Your task to perform on an android device: Go to location settings Image 0: 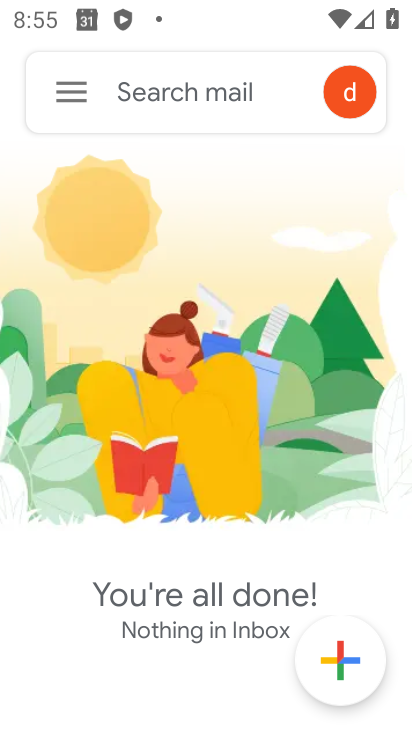
Step 0: press back button
Your task to perform on an android device: Go to location settings Image 1: 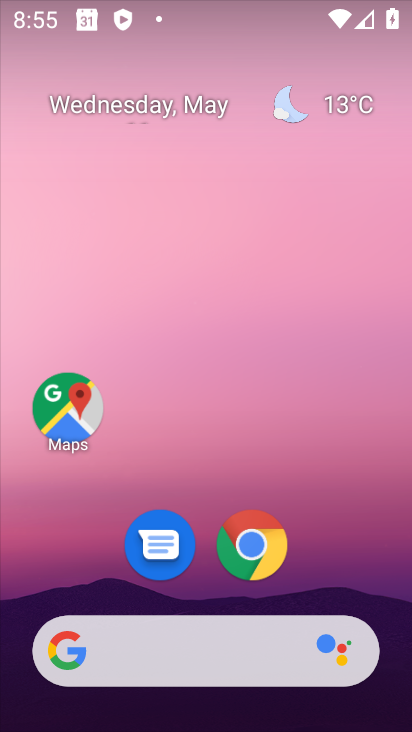
Step 1: drag from (327, 569) to (283, 40)
Your task to perform on an android device: Go to location settings Image 2: 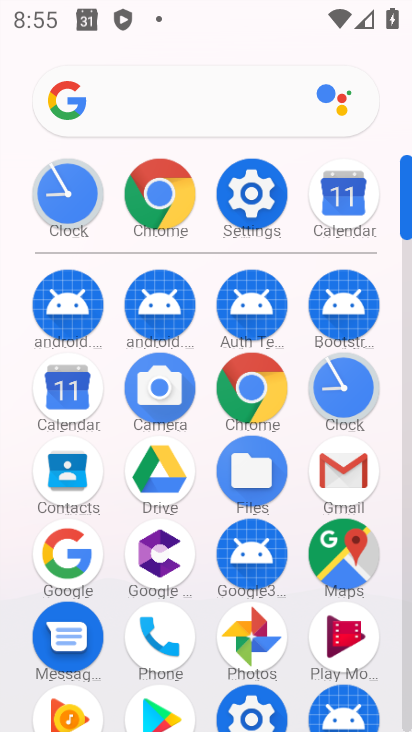
Step 2: drag from (8, 640) to (20, 315)
Your task to perform on an android device: Go to location settings Image 3: 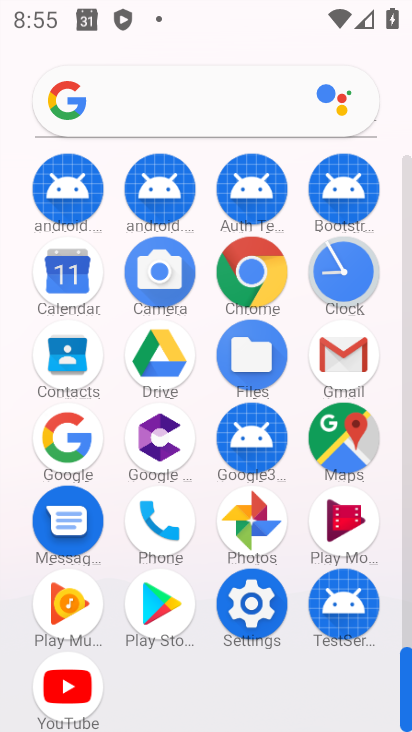
Step 3: click (251, 594)
Your task to perform on an android device: Go to location settings Image 4: 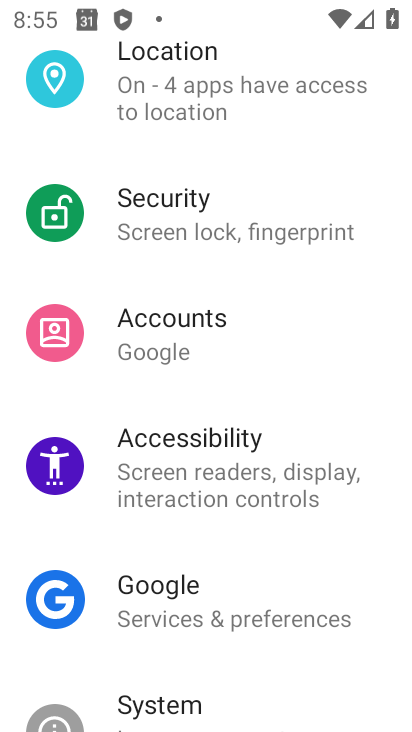
Step 4: click (223, 104)
Your task to perform on an android device: Go to location settings Image 5: 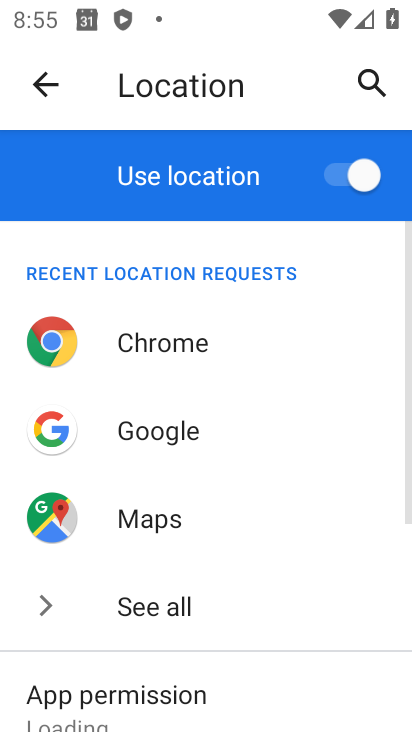
Step 5: drag from (253, 558) to (249, 170)
Your task to perform on an android device: Go to location settings Image 6: 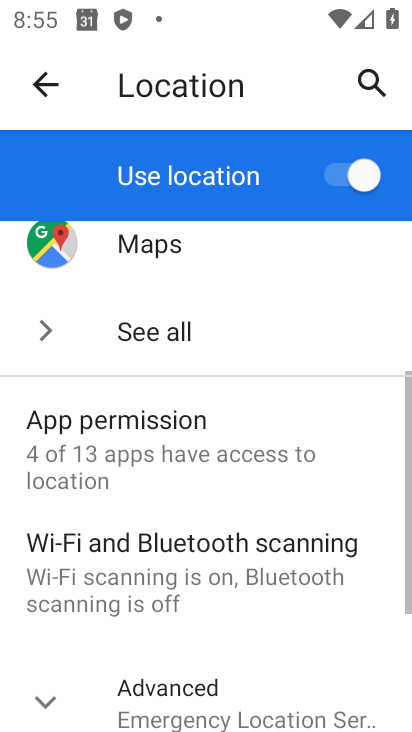
Step 6: click (61, 675)
Your task to perform on an android device: Go to location settings Image 7: 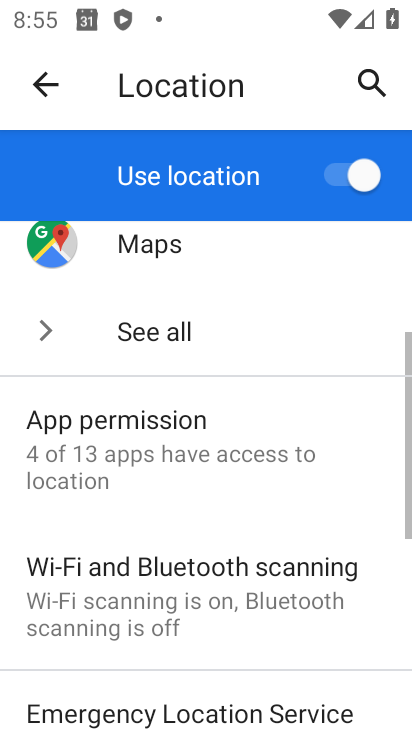
Step 7: task complete